Your task to perform on an android device: change text size in settings app Image 0: 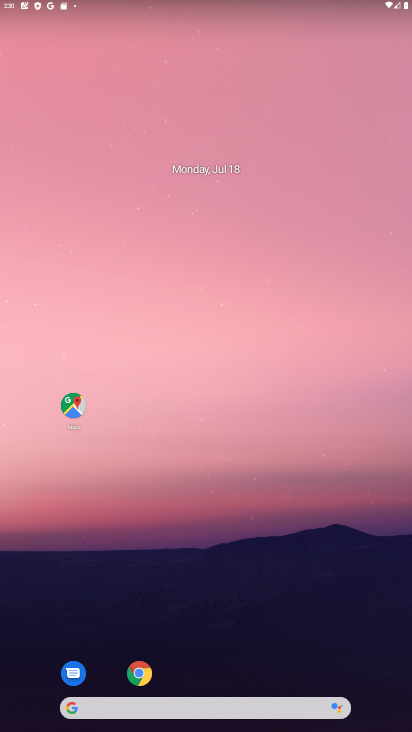
Step 0: drag from (201, 704) to (185, 164)
Your task to perform on an android device: change text size in settings app Image 1: 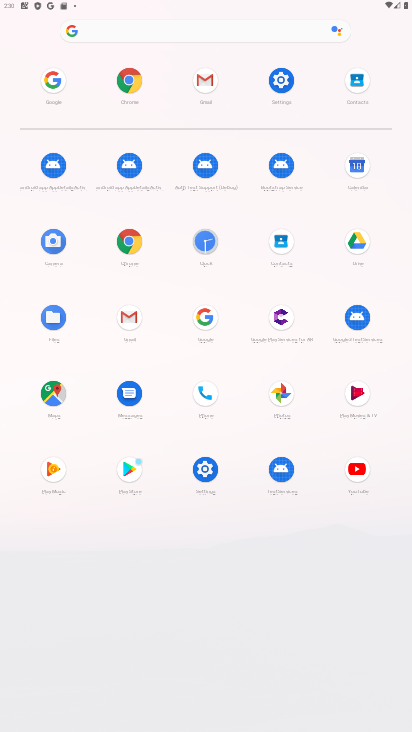
Step 1: click (206, 471)
Your task to perform on an android device: change text size in settings app Image 2: 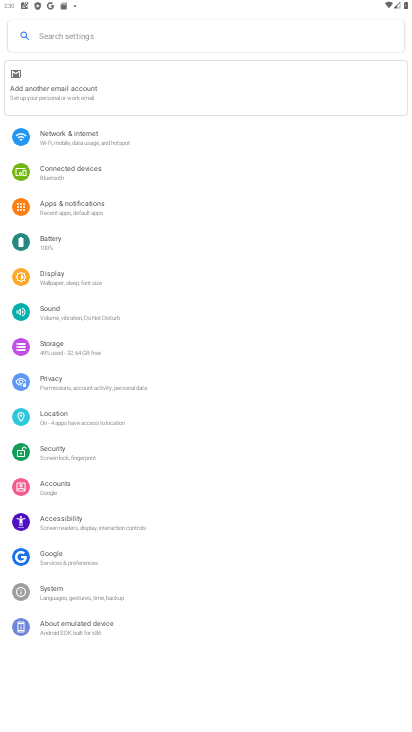
Step 2: click (73, 523)
Your task to perform on an android device: change text size in settings app Image 3: 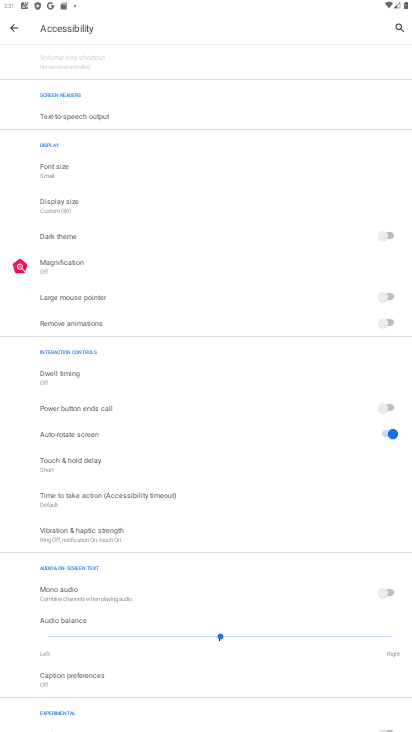
Step 3: click (62, 168)
Your task to perform on an android device: change text size in settings app Image 4: 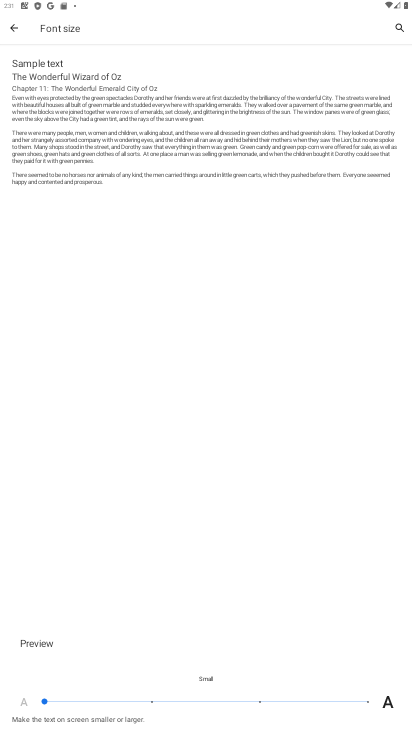
Step 4: click (258, 701)
Your task to perform on an android device: change text size in settings app Image 5: 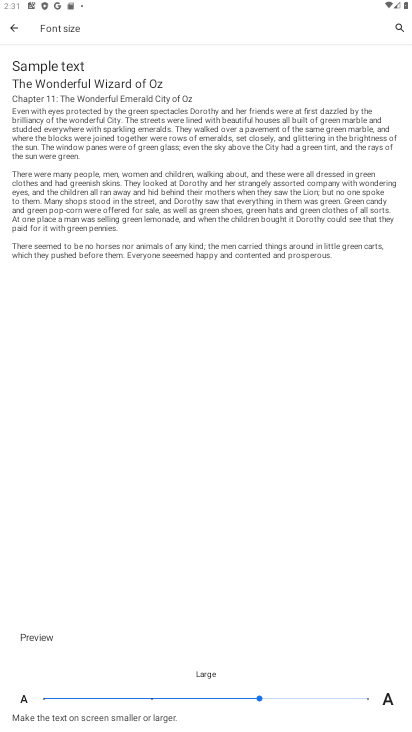
Step 5: task complete